Your task to perform on an android device: read, delete, or share a saved page in the chrome app Image 0: 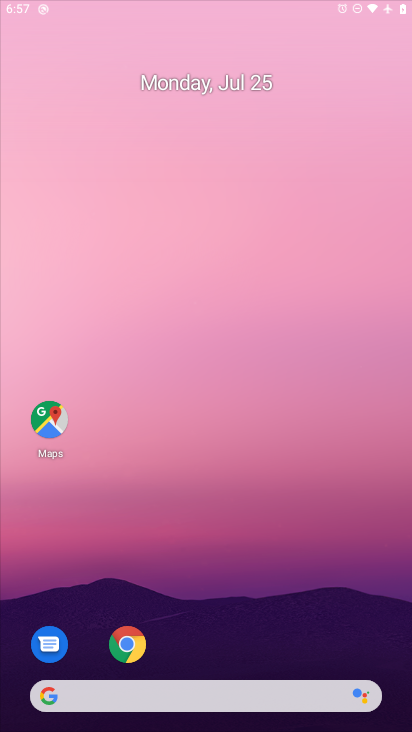
Step 0: press home button
Your task to perform on an android device: read, delete, or share a saved page in the chrome app Image 1: 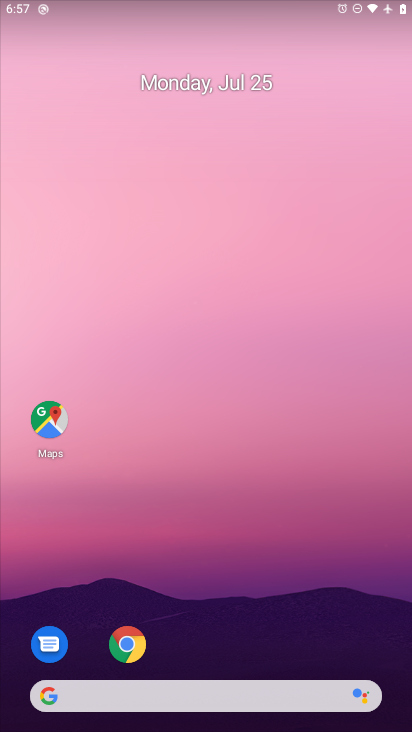
Step 1: drag from (236, 655) to (315, 195)
Your task to perform on an android device: read, delete, or share a saved page in the chrome app Image 2: 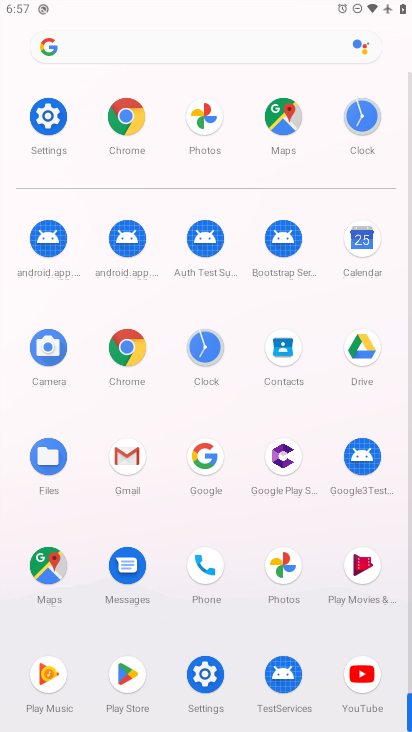
Step 2: click (117, 113)
Your task to perform on an android device: read, delete, or share a saved page in the chrome app Image 3: 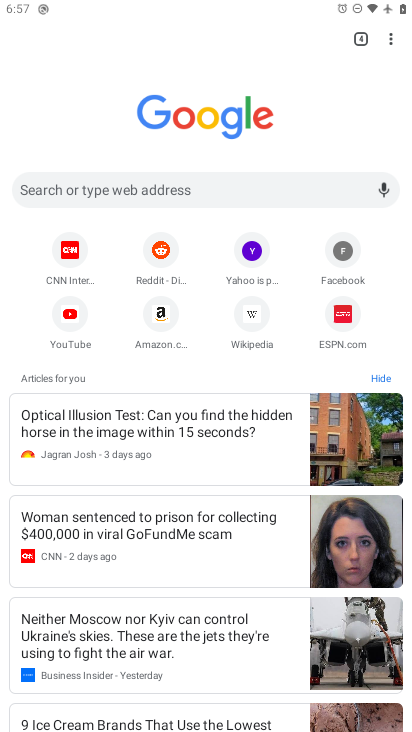
Step 3: drag from (389, 40) to (260, 252)
Your task to perform on an android device: read, delete, or share a saved page in the chrome app Image 4: 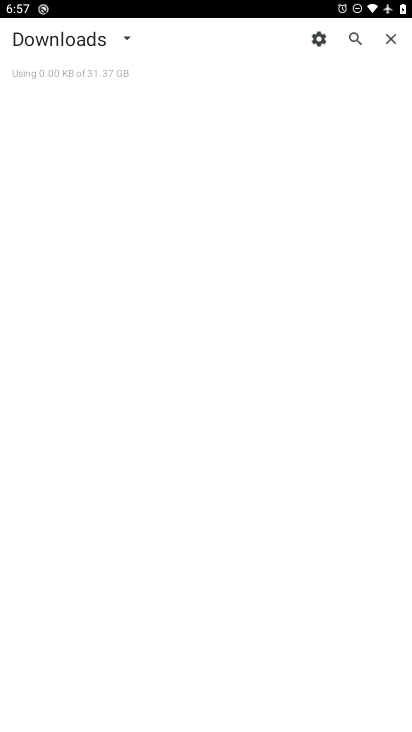
Step 4: click (123, 38)
Your task to perform on an android device: read, delete, or share a saved page in the chrome app Image 5: 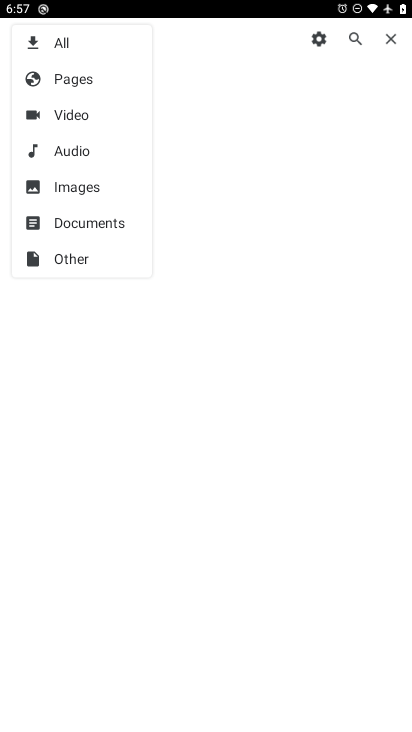
Step 5: click (69, 85)
Your task to perform on an android device: read, delete, or share a saved page in the chrome app Image 6: 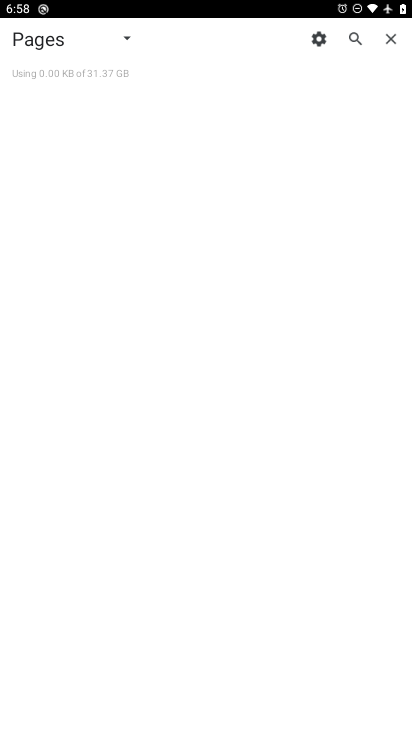
Step 6: task complete